Your task to perform on an android device: Go to Google Image 0: 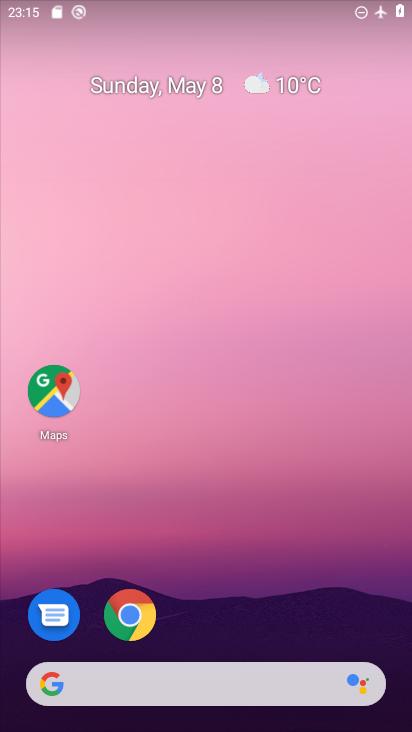
Step 0: drag from (274, 618) to (226, 46)
Your task to perform on an android device: Go to Google Image 1: 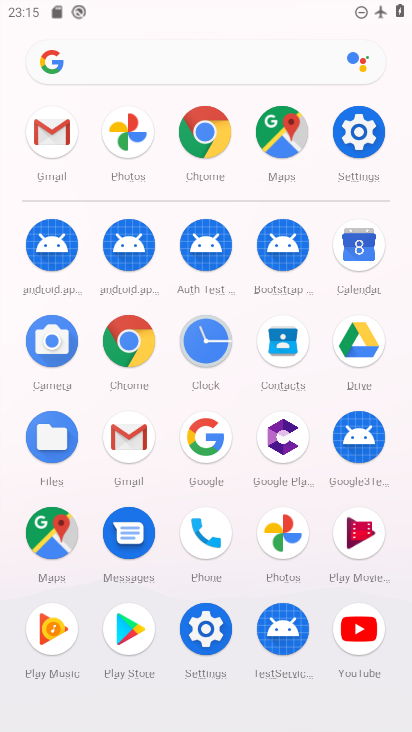
Step 1: click (209, 448)
Your task to perform on an android device: Go to Google Image 2: 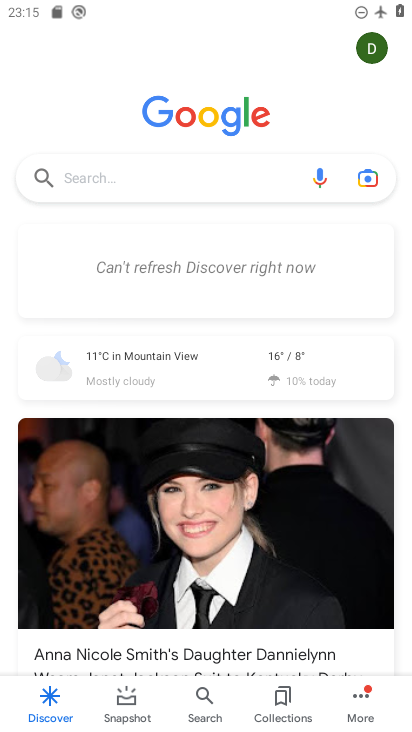
Step 2: task complete